Your task to perform on an android device: Search for a new lawnmower on Lowes. Image 0: 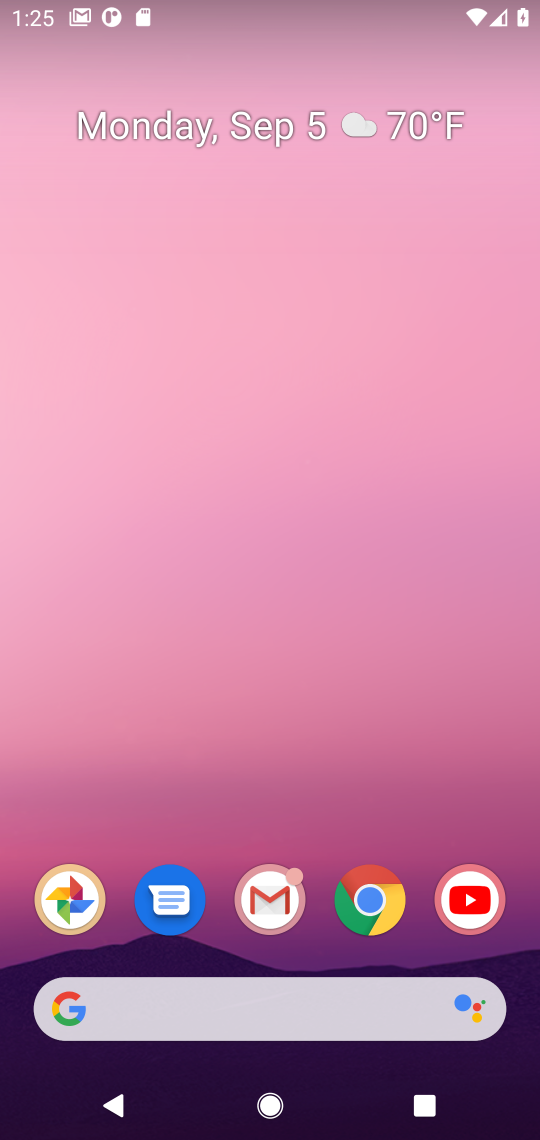
Step 0: drag from (306, 800) to (217, 7)
Your task to perform on an android device: Search for a new lawnmower on Lowes. Image 1: 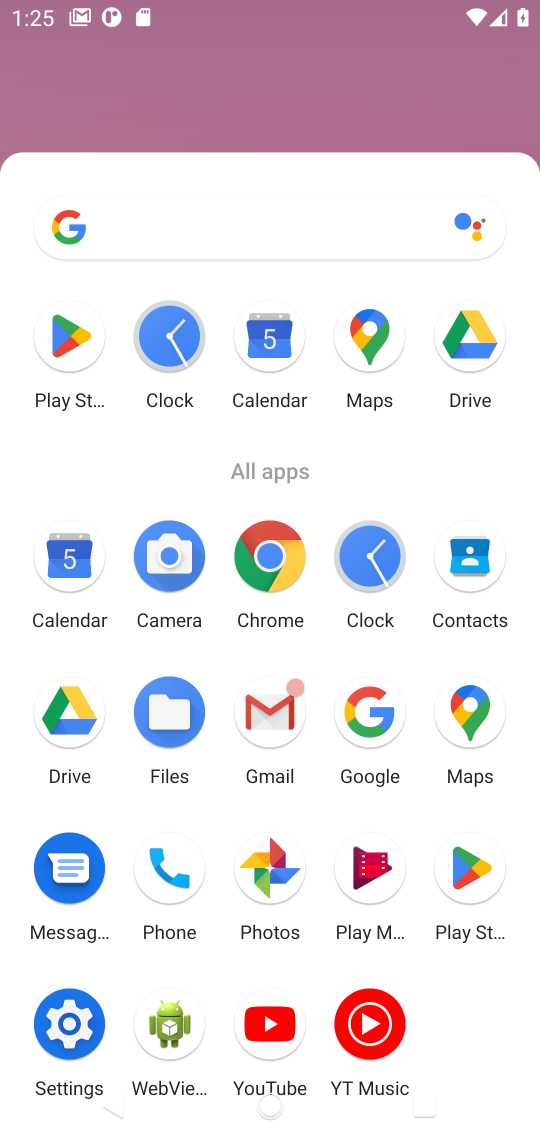
Step 1: click (383, 719)
Your task to perform on an android device: Search for a new lawnmower on Lowes. Image 2: 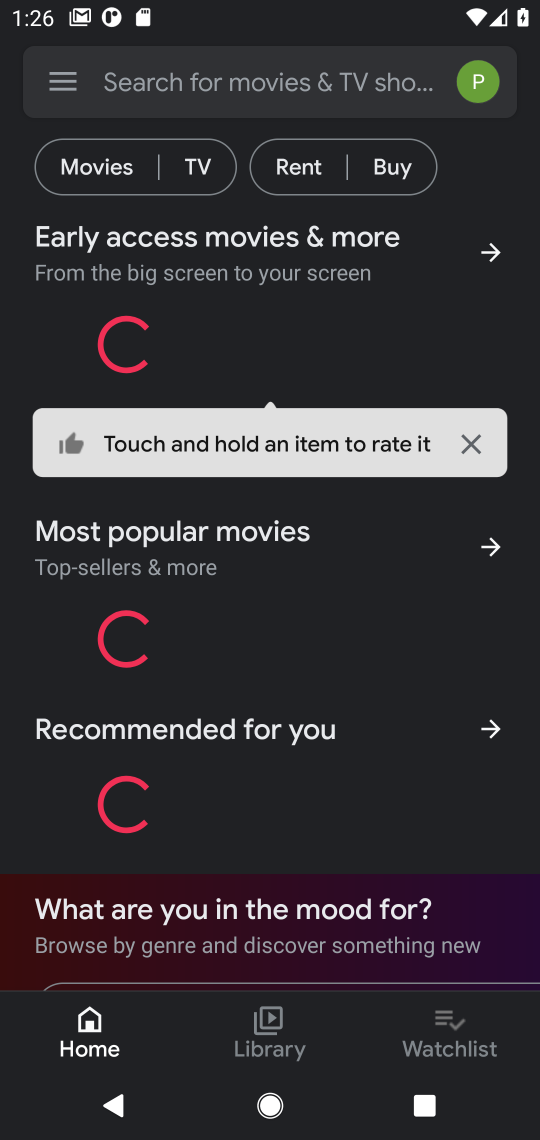
Step 2: press home button
Your task to perform on an android device: Search for a new lawnmower on Lowes. Image 3: 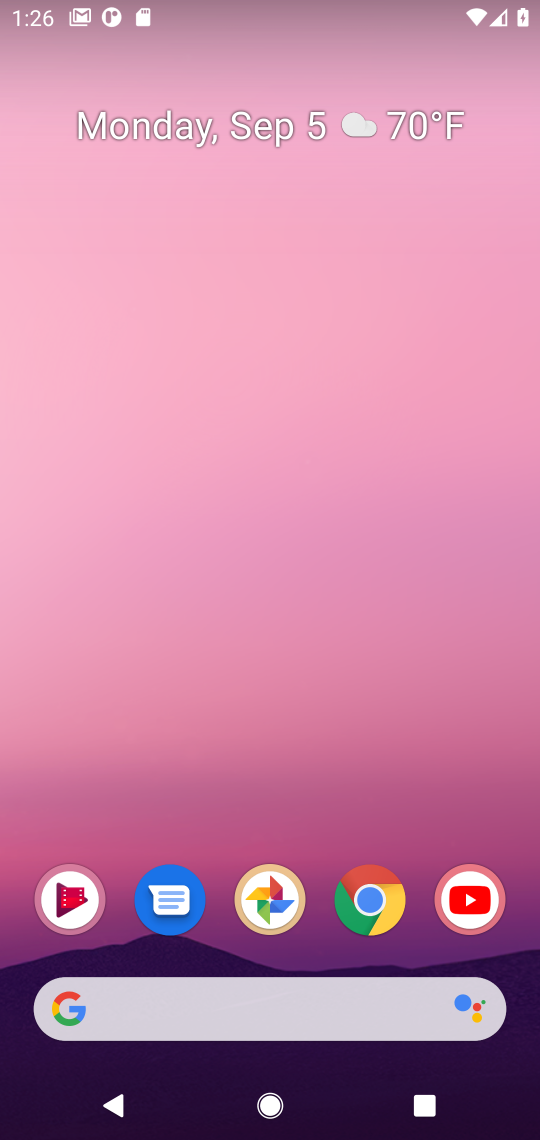
Step 3: click (368, 909)
Your task to perform on an android device: Search for a new lawnmower on Lowes. Image 4: 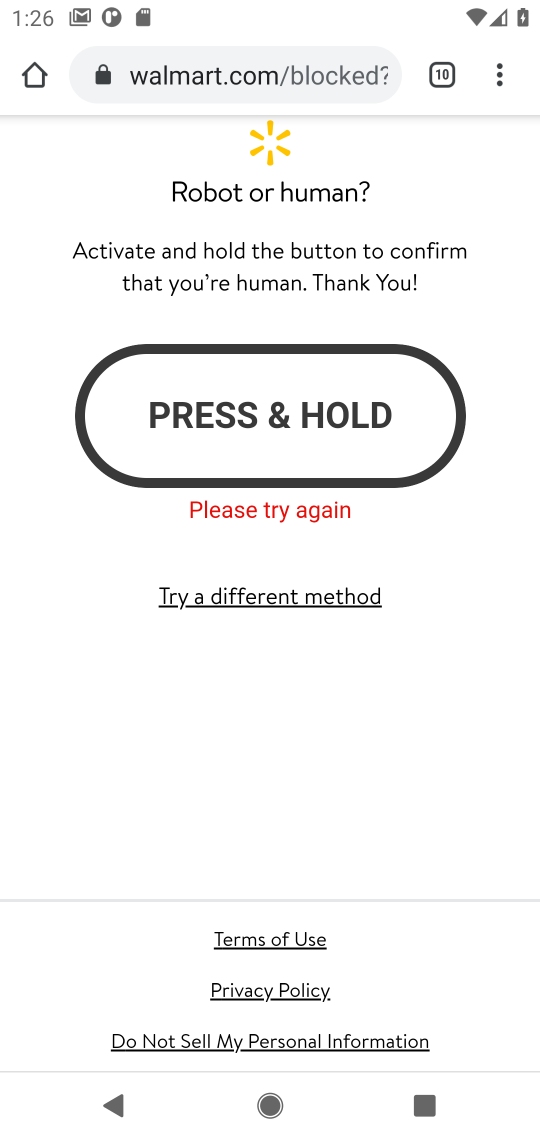
Step 4: drag from (366, 112) to (534, 84)
Your task to perform on an android device: Search for a new lawnmower on Lowes. Image 5: 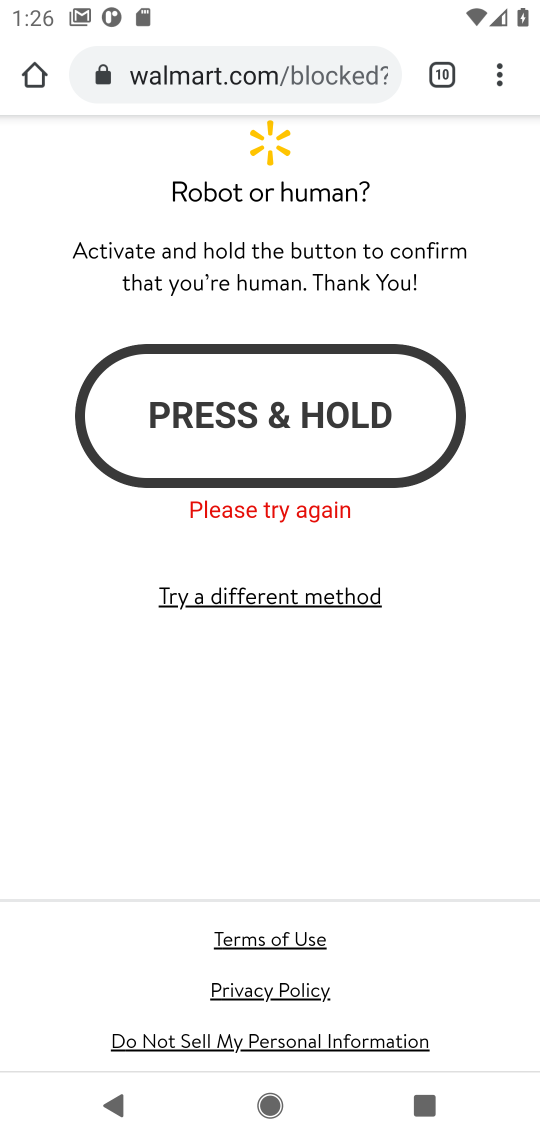
Step 5: drag from (497, 77) to (225, 251)
Your task to perform on an android device: Search for a new lawnmower on Lowes. Image 6: 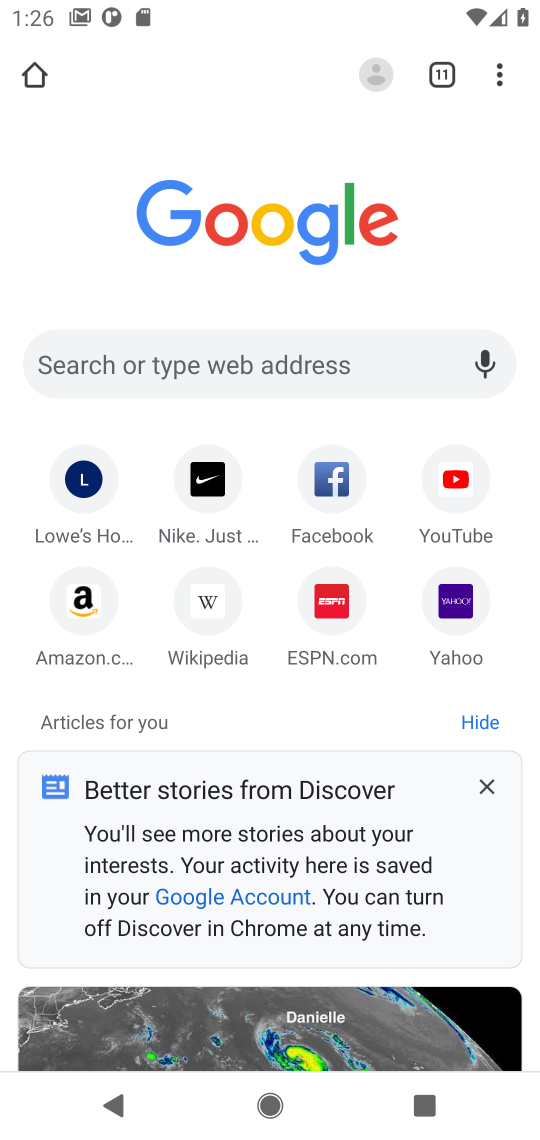
Step 6: click (246, 361)
Your task to perform on an android device: Search for a new lawnmower on Lowes. Image 7: 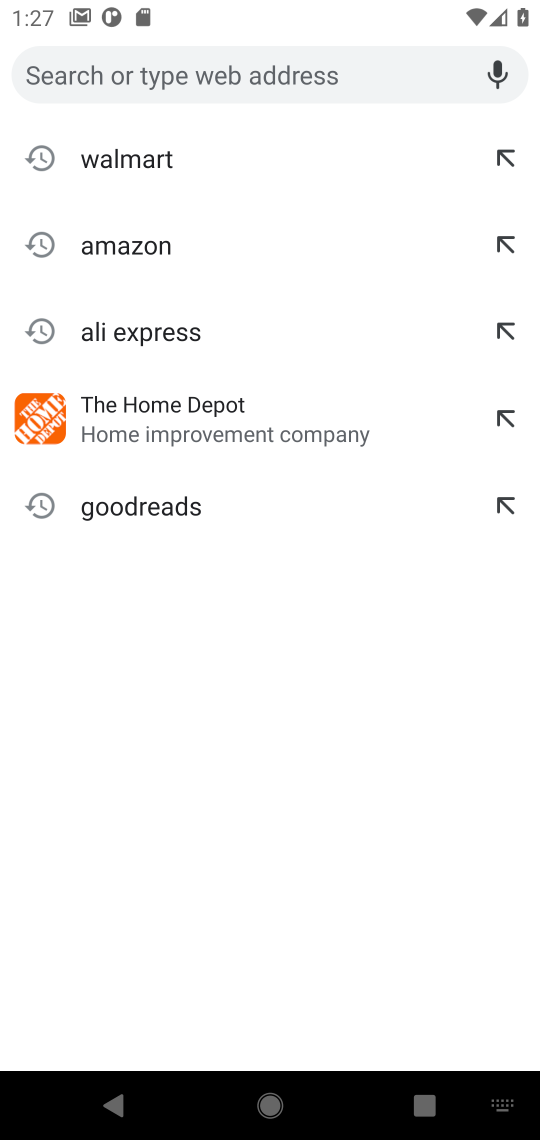
Step 7: type "Lowes"
Your task to perform on an android device: Search for a new lawnmower on Lowes. Image 8: 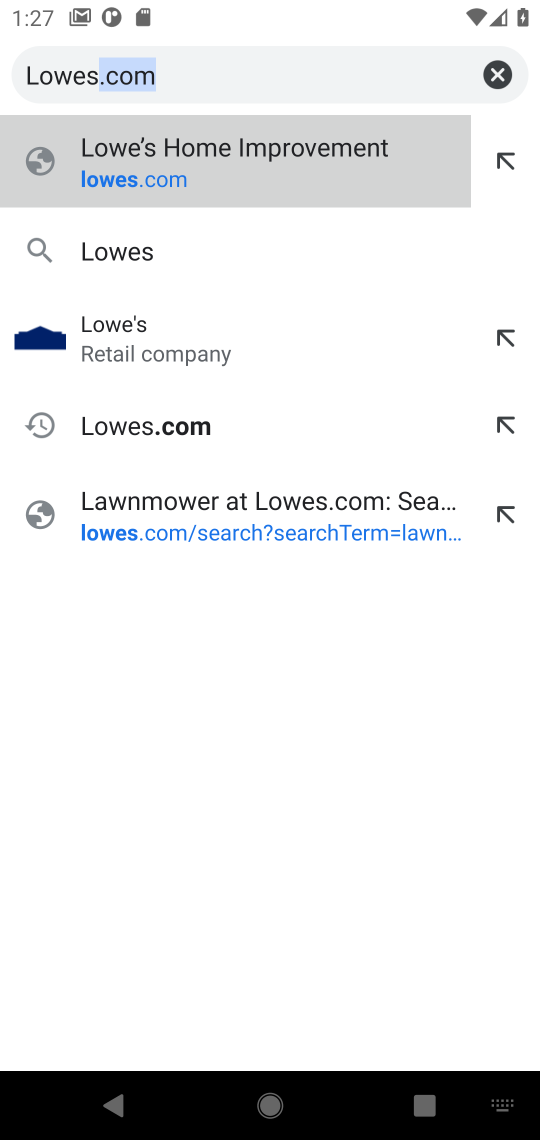
Step 8: click (179, 161)
Your task to perform on an android device: Search for a new lawnmower on Lowes. Image 9: 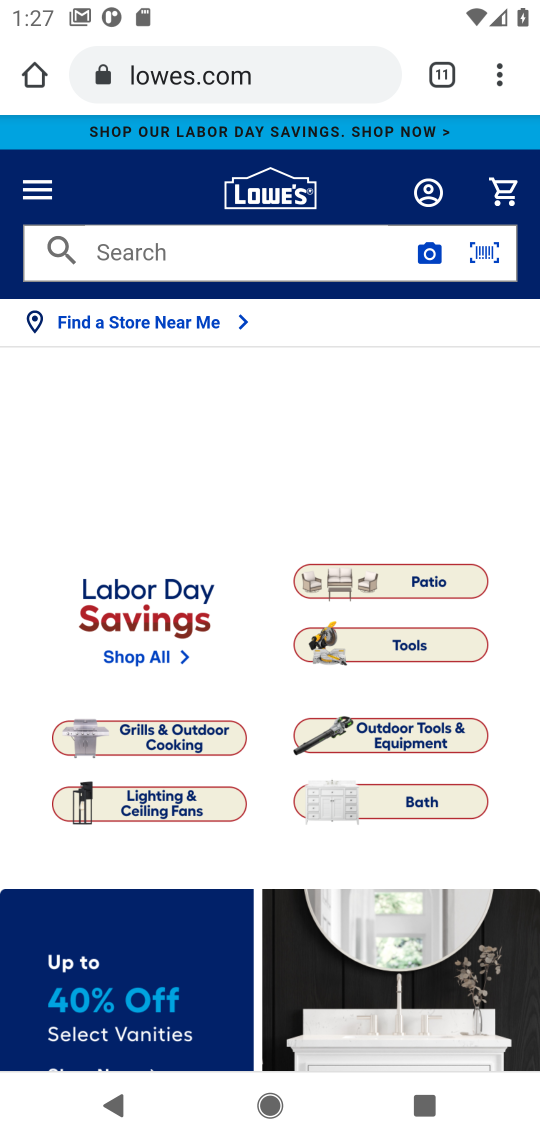
Step 9: click (189, 252)
Your task to perform on an android device: Search for a new lawnmower on Lowes. Image 10: 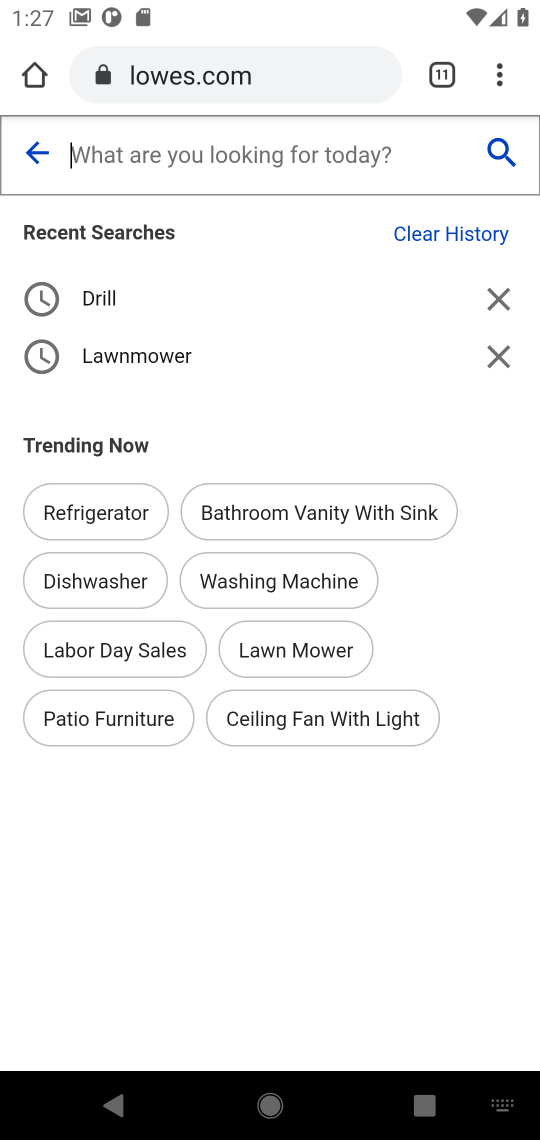
Step 10: type "lawnmower"
Your task to perform on an android device: Search for a new lawnmower on Lowes. Image 11: 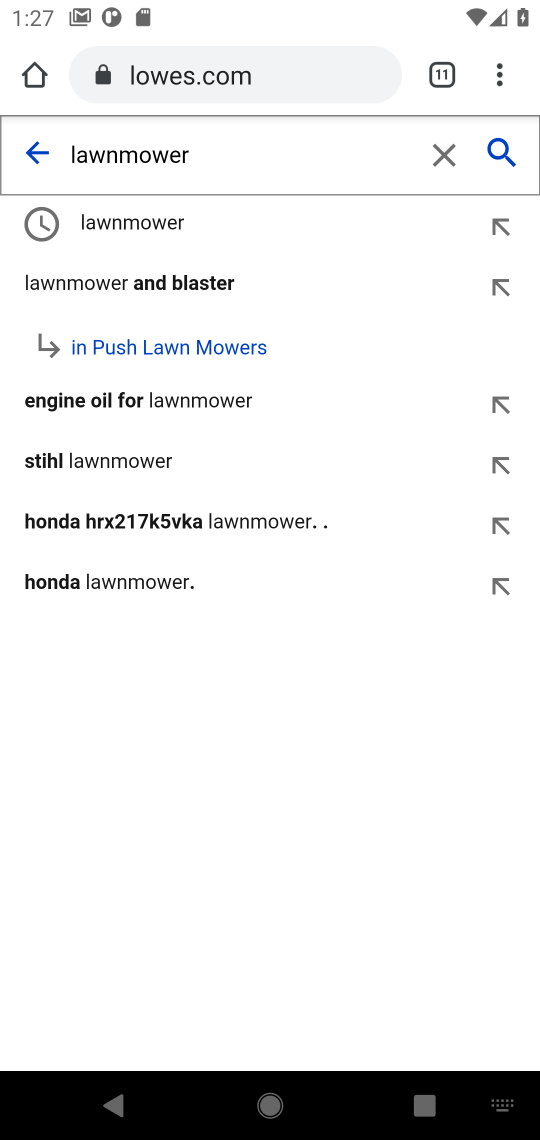
Step 11: click (156, 227)
Your task to perform on an android device: Search for a new lawnmower on Lowes. Image 12: 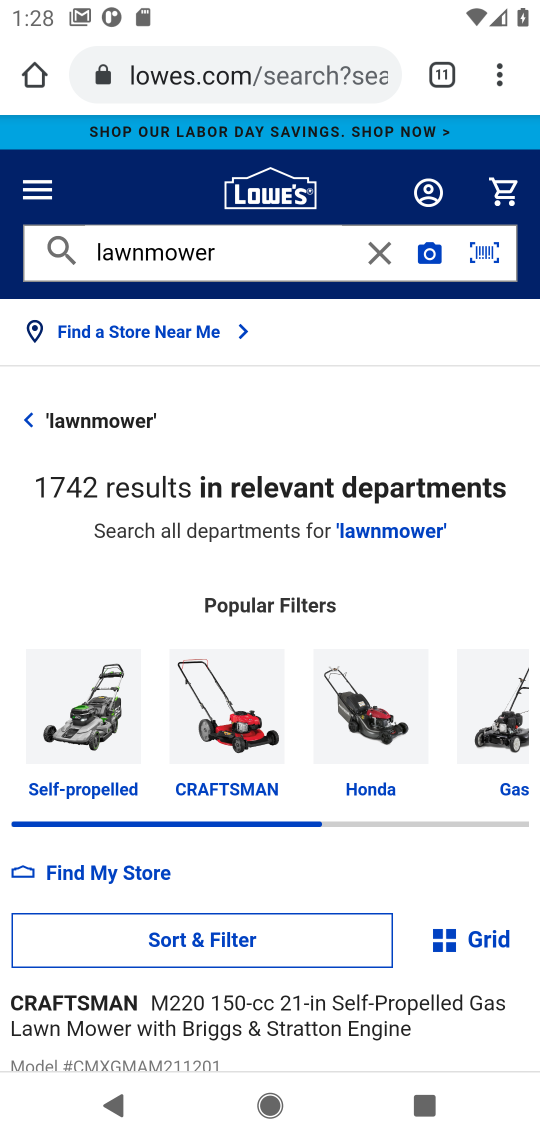
Step 12: task complete